Your task to perform on an android device: turn off notifications in google photos Image 0: 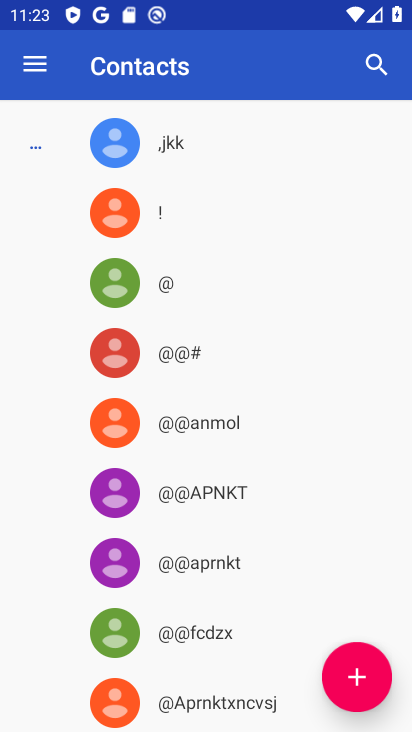
Step 0: press back button
Your task to perform on an android device: turn off notifications in google photos Image 1: 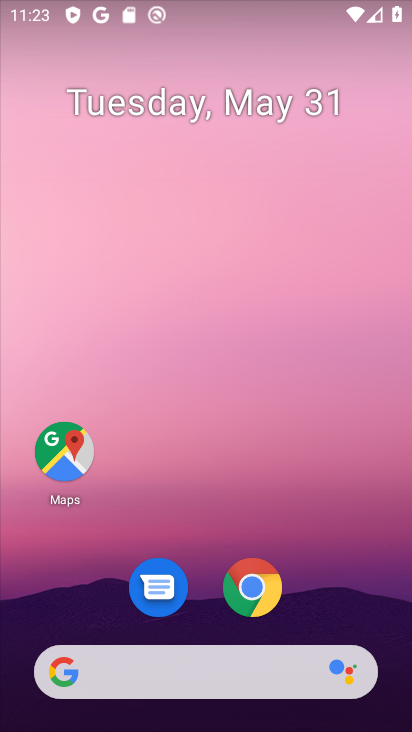
Step 1: drag from (334, 577) to (257, 28)
Your task to perform on an android device: turn off notifications in google photos Image 2: 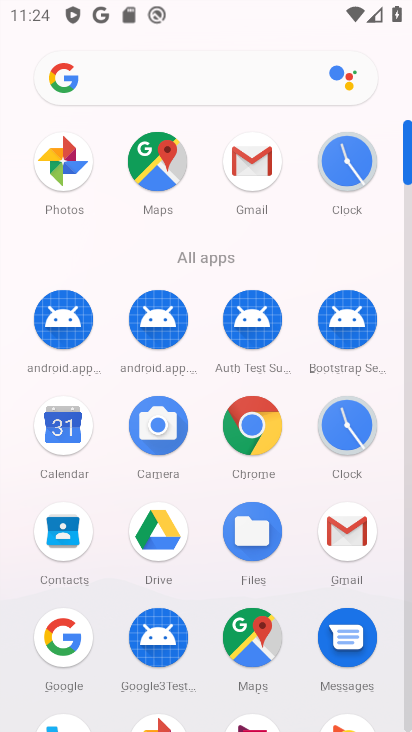
Step 2: click (64, 161)
Your task to perform on an android device: turn off notifications in google photos Image 3: 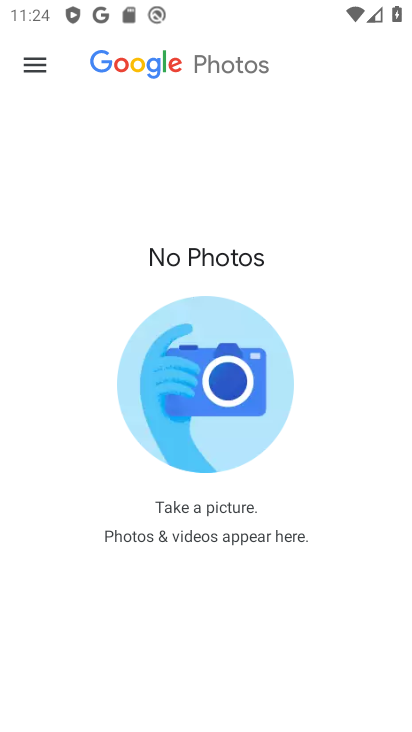
Step 3: click (35, 63)
Your task to perform on an android device: turn off notifications in google photos Image 4: 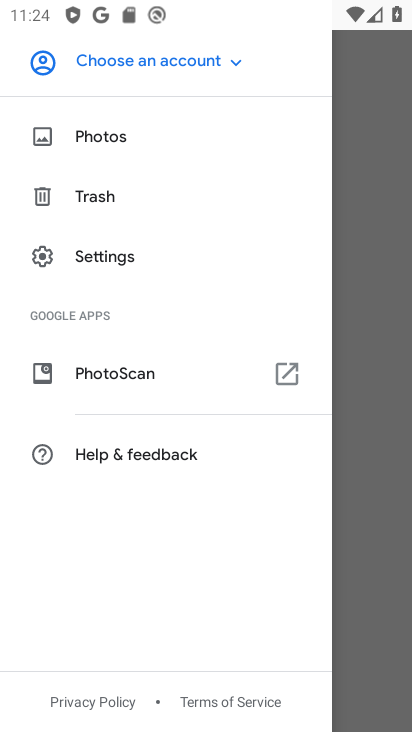
Step 4: click (100, 254)
Your task to perform on an android device: turn off notifications in google photos Image 5: 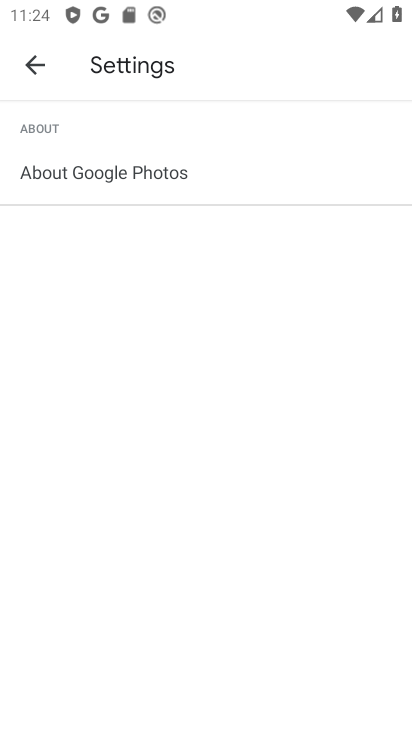
Step 5: click (28, 68)
Your task to perform on an android device: turn off notifications in google photos Image 6: 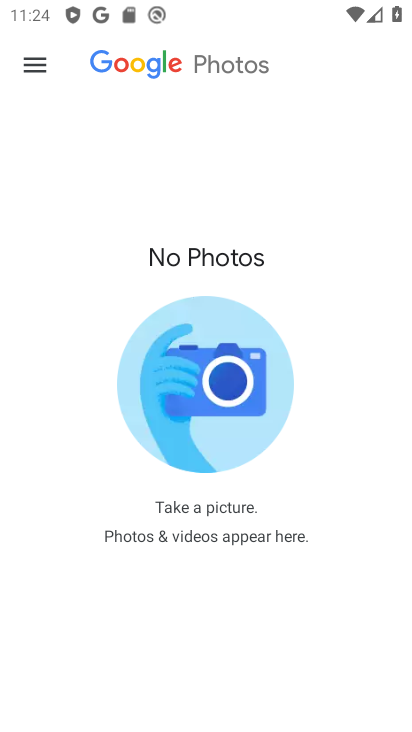
Step 6: click (28, 71)
Your task to perform on an android device: turn off notifications in google photos Image 7: 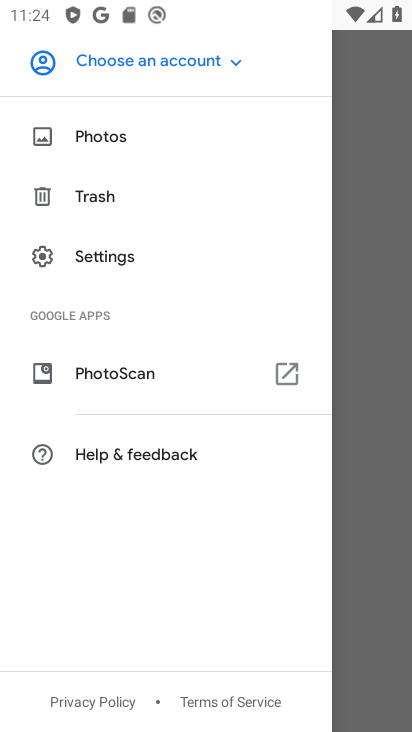
Step 7: click (91, 244)
Your task to perform on an android device: turn off notifications in google photos Image 8: 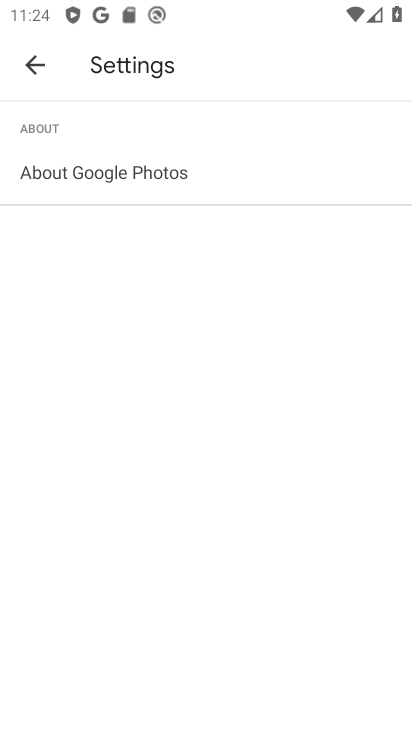
Step 8: click (94, 178)
Your task to perform on an android device: turn off notifications in google photos Image 9: 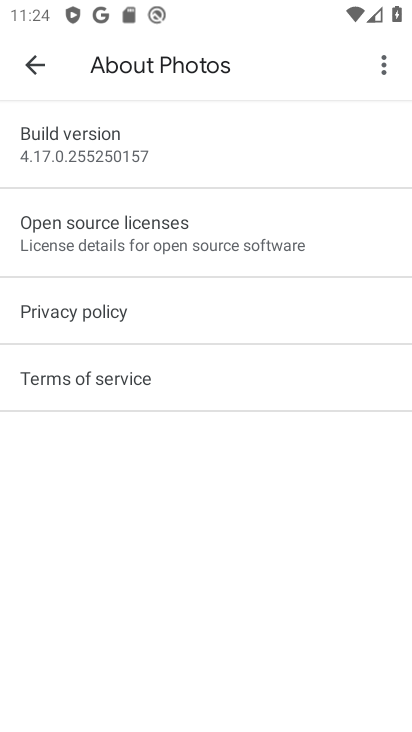
Step 9: click (27, 57)
Your task to perform on an android device: turn off notifications in google photos Image 10: 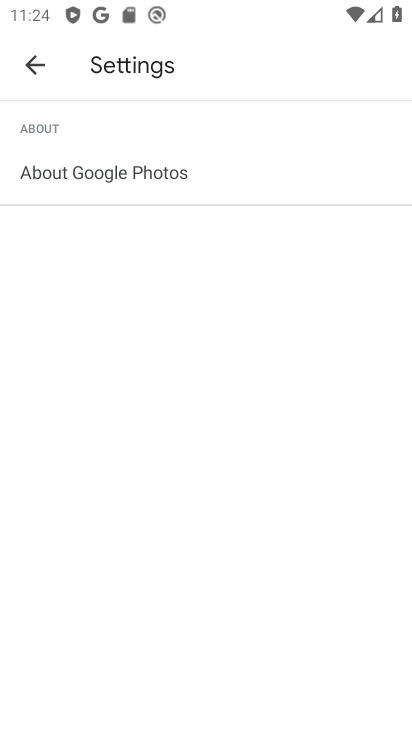
Step 10: click (27, 57)
Your task to perform on an android device: turn off notifications in google photos Image 11: 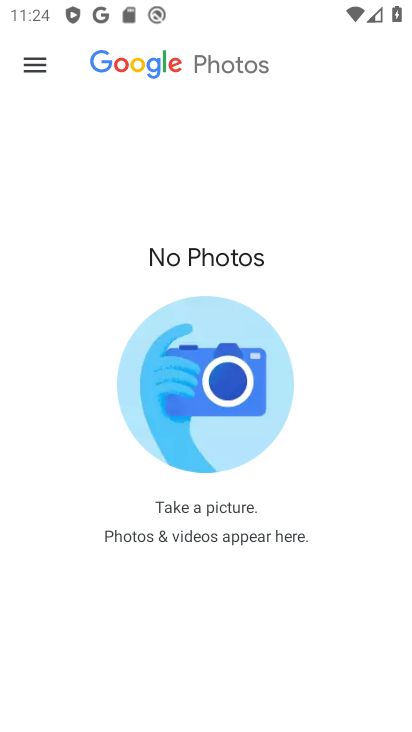
Step 11: click (27, 57)
Your task to perform on an android device: turn off notifications in google photos Image 12: 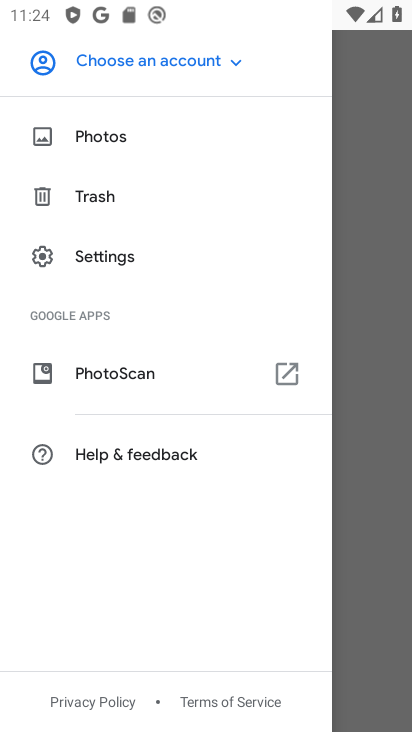
Step 12: click (121, 253)
Your task to perform on an android device: turn off notifications in google photos Image 13: 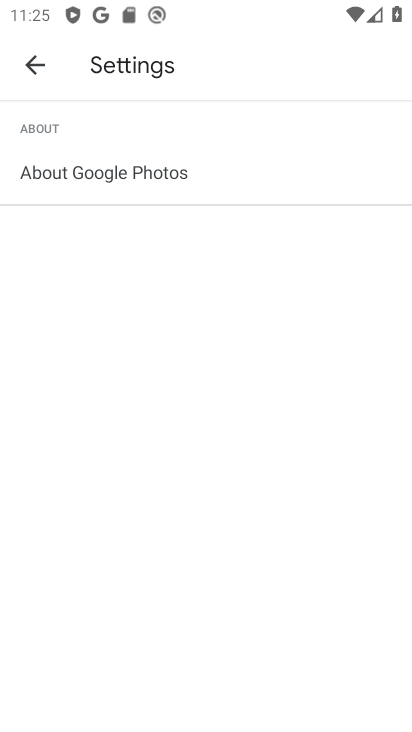
Step 13: task complete